Your task to perform on an android device: turn on javascript in the chrome app Image 0: 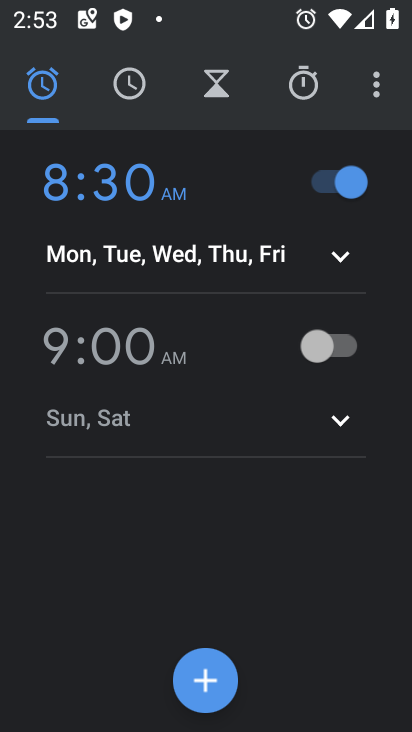
Step 0: press home button
Your task to perform on an android device: turn on javascript in the chrome app Image 1: 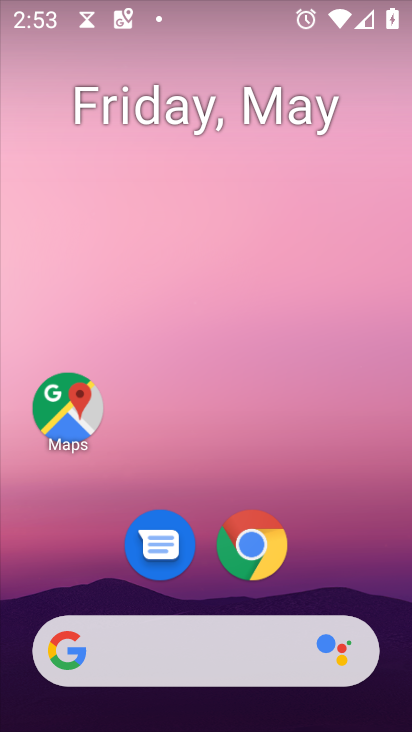
Step 1: click (253, 543)
Your task to perform on an android device: turn on javascript in the chrome app Image 2: 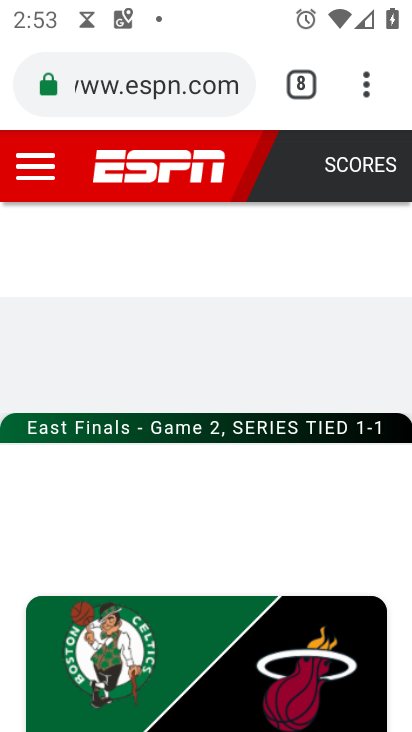
Step 2: click (373, 86)
Your task to perform on an android device: turn on javascript in the chrome app Image 3: 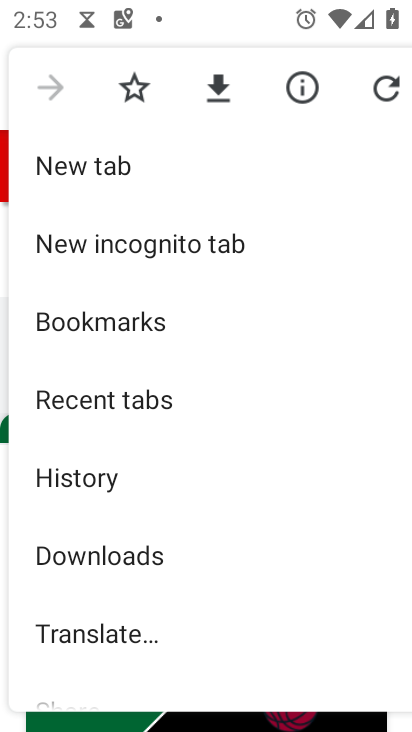
Step 3: drag from (207, 638) to (218, 354)
Your task to perform on an android device: turn on javascript in the chrome app Image 4: 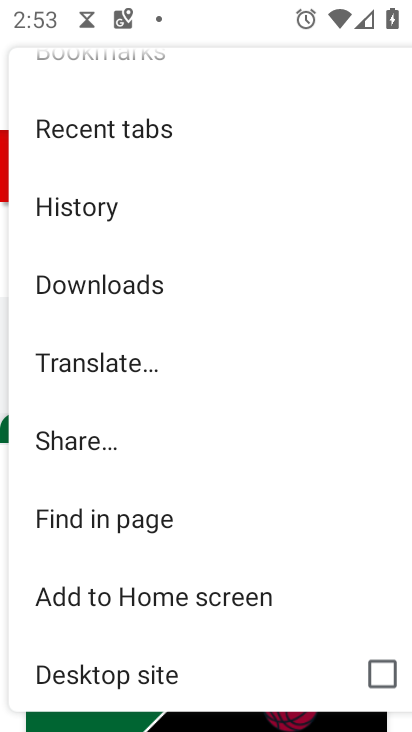
Step 4: drag from (167, 603) to (156, 316)
Your task to perform on an android device: turn on javascript in the chrome app Image 5: 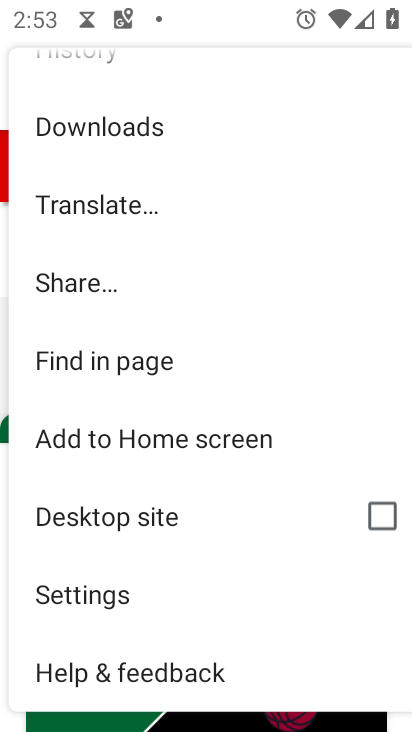
Step 5: click (114, 597)
Your task to perform on an android device: turn on javascript in the chrome app Image 6: 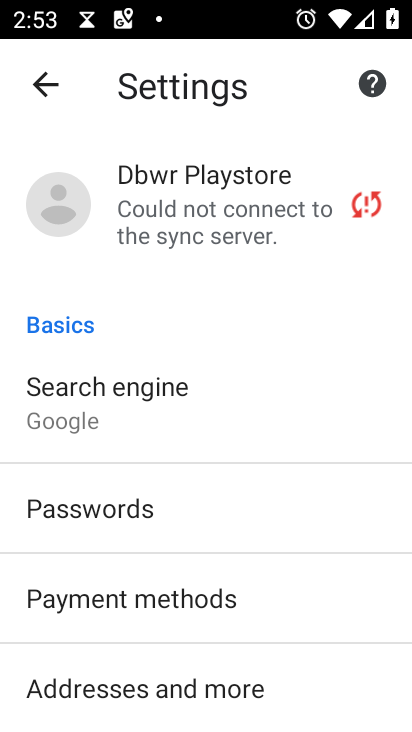
Step 6: drag from (272, 617) to (255, 245)
Your task to perform on an android device: turn on javascript in the chrome app Image 7: 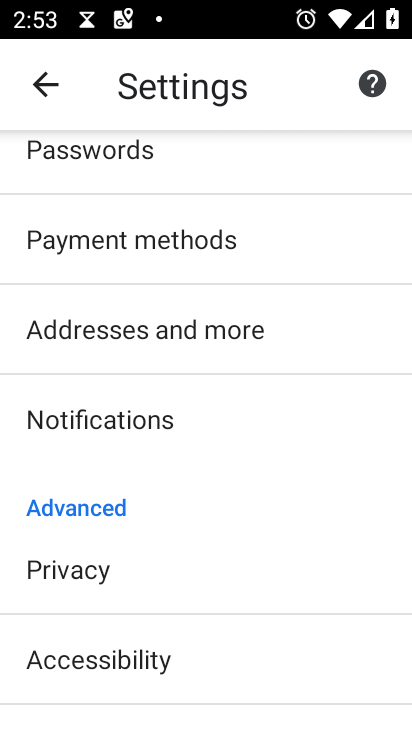
Step 7: drag from (252, 594) to (239, 269)
Your task to perform on an android device: turn on javascript in the chrome app Image 8: 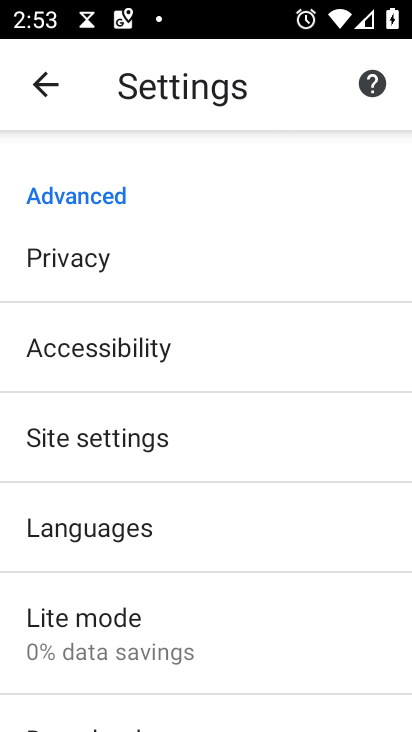
Step 8: click (166, 446)
Your task to perform on an android device: turn on javascript in the chrome app Image 9: 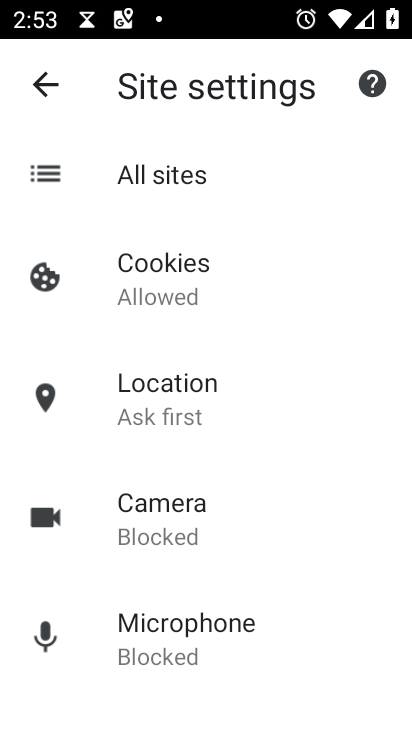
Step 9: drag from (326, 599) to (291, 348)
Your task to perform on an android device: turn on javascript in the chrome app Image 10: 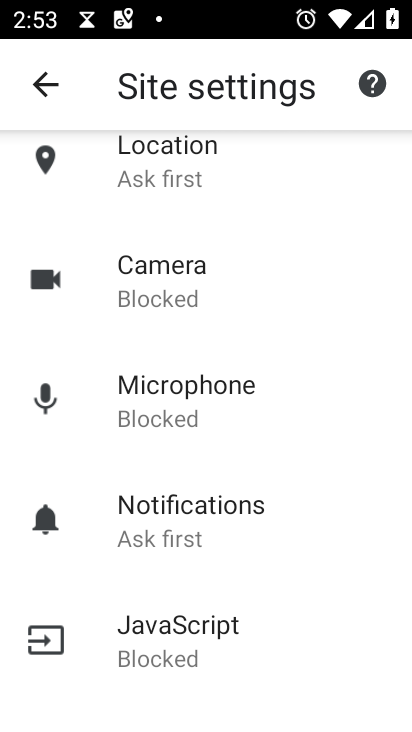
Step 10: click (207, 651)
Your task to perform on an android device: turn on javascript in the chrome app Image 11: 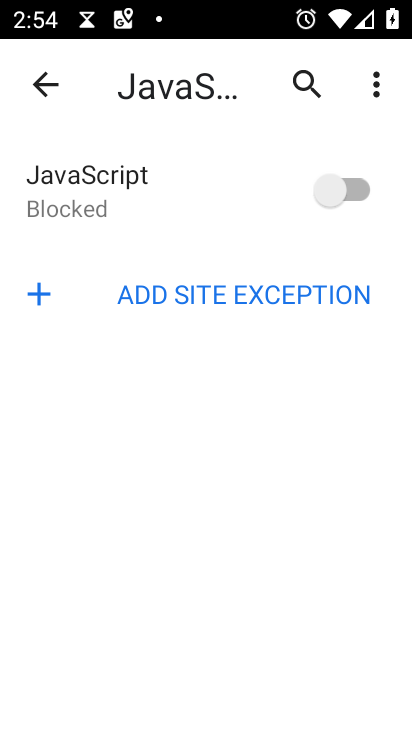
Step 11: click (360, 190)
Your task to perform on an android device: turn on javascript in the chrome app Image 12: 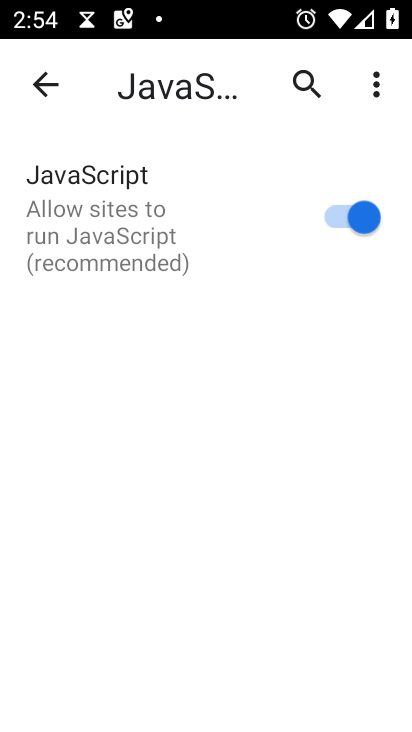
Step 12: task complete